Your task to perform on an android device: Go to internet settings Image 0: 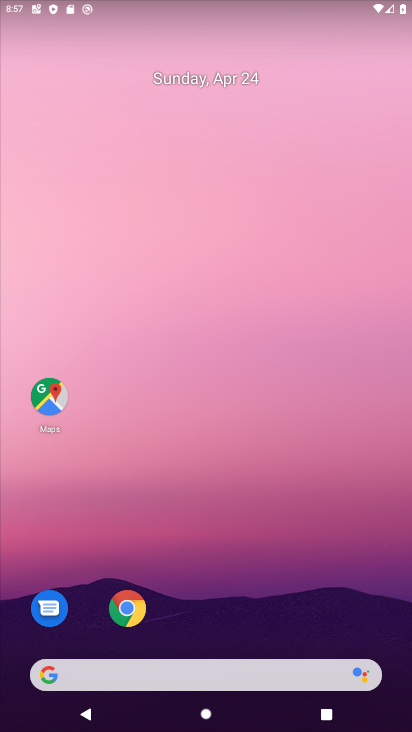
Step 0: drag from (266, 673) to (298, 161)
Your task to perform on an android device: Go to internet settings Image 1: 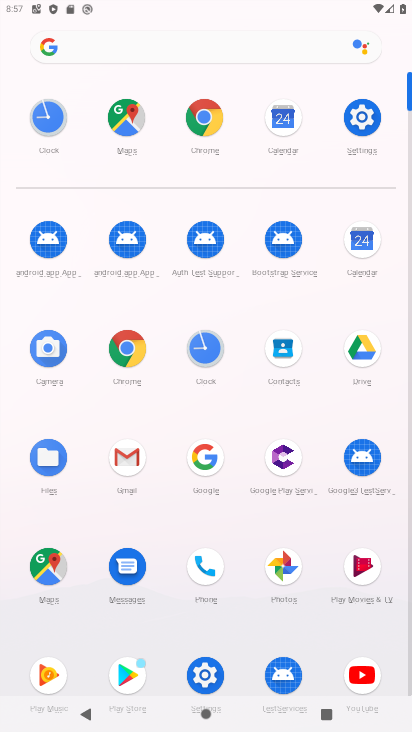
Step 1: click (354, 124)
Your task to perform on an android device: Go to internet settings Image 2: 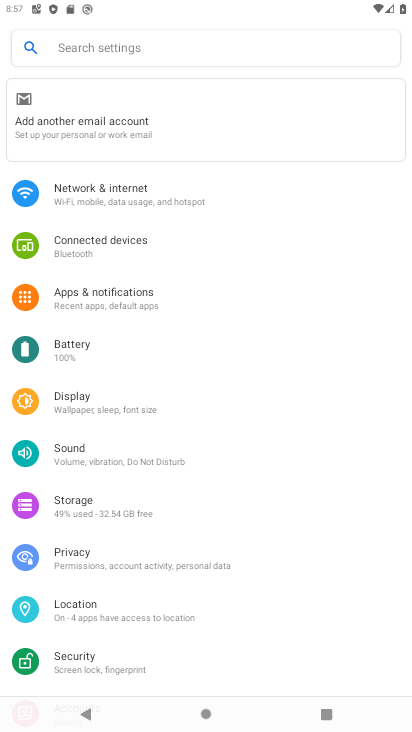
Step 2: click (181, 183)
Your task to perform on an android device: Go to internet settings Image 3: 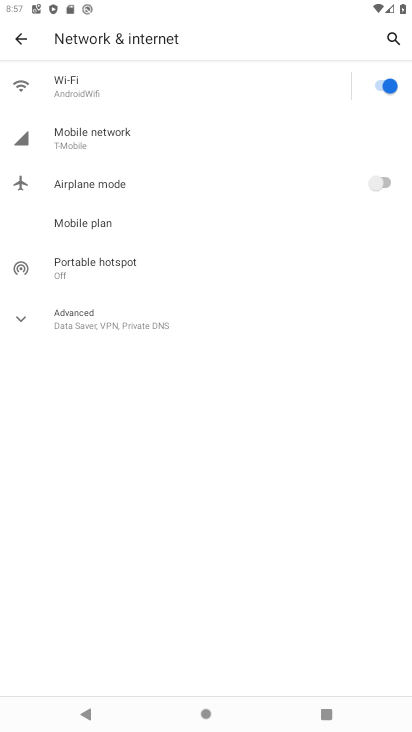
Step 3: task complete